Your task to perform on an android device: Open the web browser Image 0: 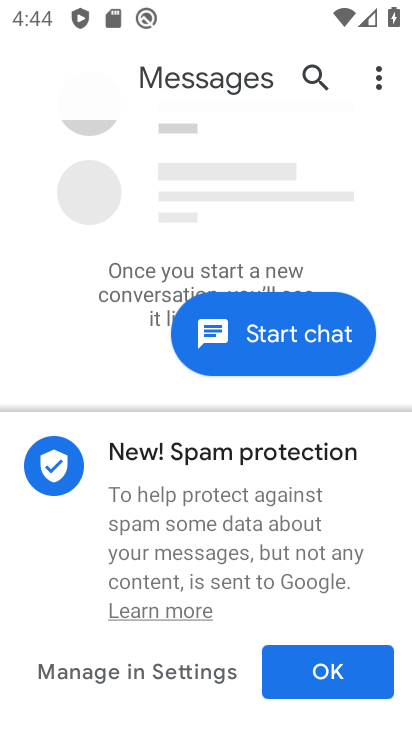
Step 0: press home button
Your task to perform on an android device: Open the web browser Image 1: 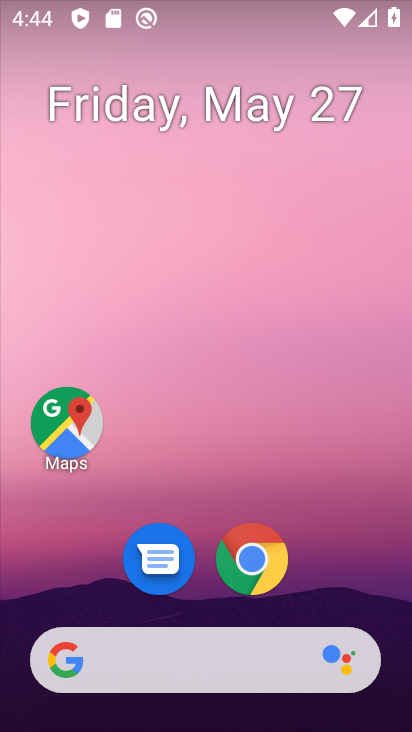
Step 1: click (258, 558)
Your task to perform on an android device: Open the web browser Image 2: 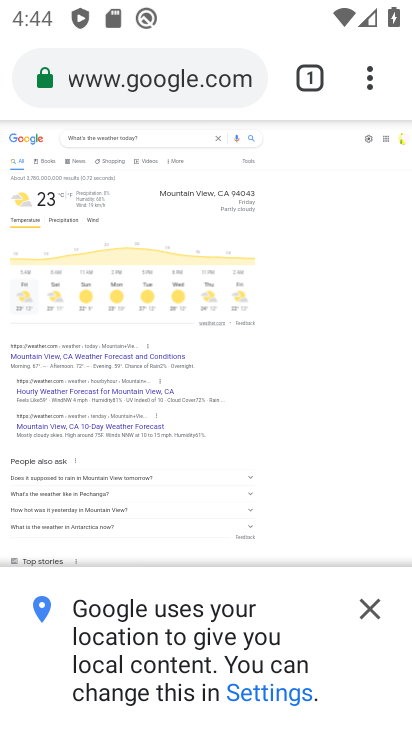
Step 2: click (245, 78)
Your task to perform on an android device: Open the web browser Image 3: 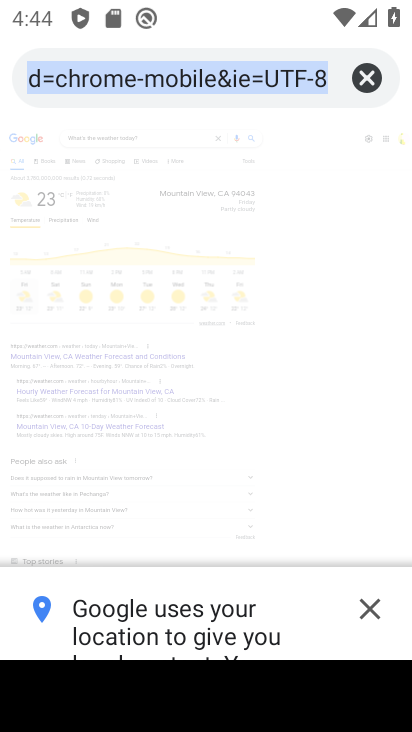
Step 3: click (353, 77)
Your task to perform on an android device: Open the web browser Image 4: 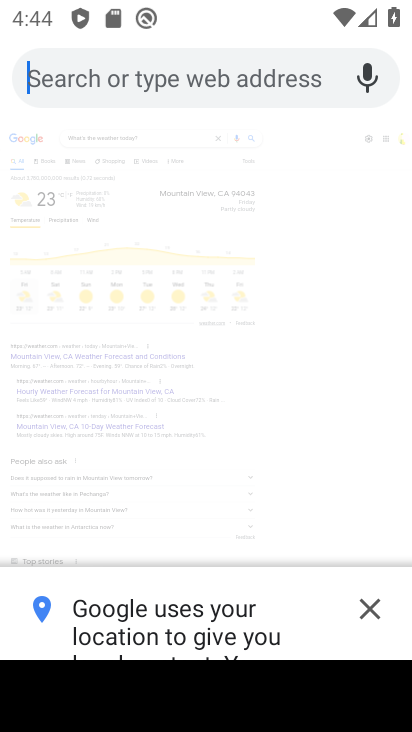
Step 4: type " web browser"
Your task to perform on an android device: Open the web browser Image 5: 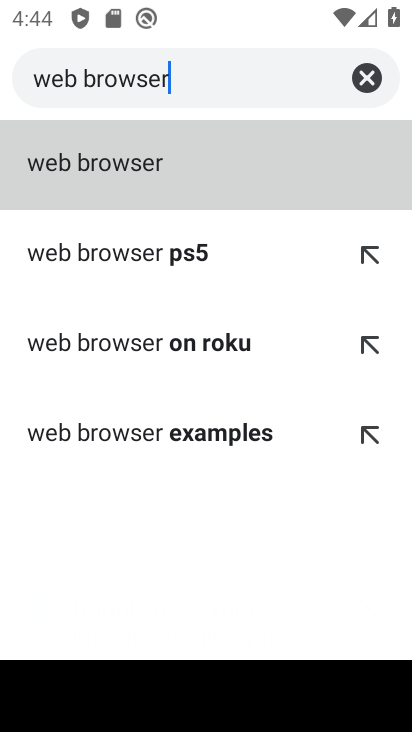
Step 5: type " web browser"
Your task to perform on an android device: Open the web browser Image 6: 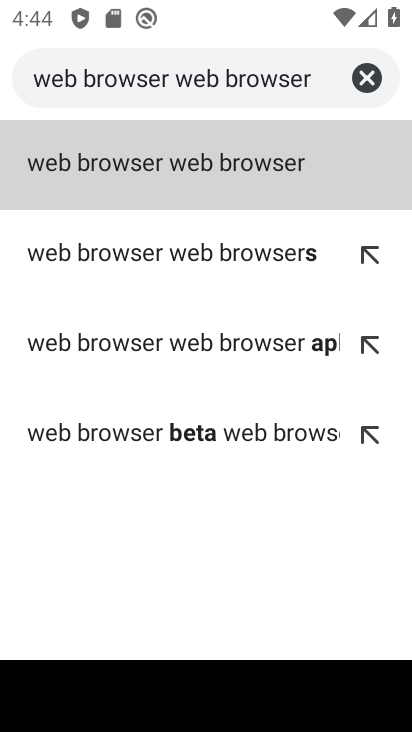
Step 6: click (93, 171)
Your task to perform on an android device: Open the web browser Image 7: 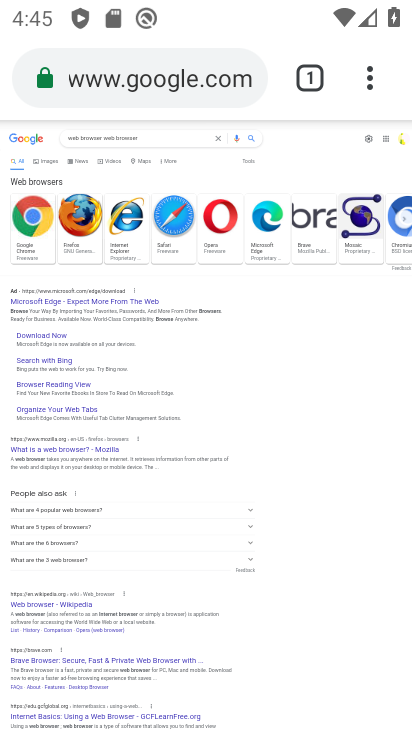
Step 7: task complete